Your task to perform on an android device: turn off translation in the chrome app Image 0: 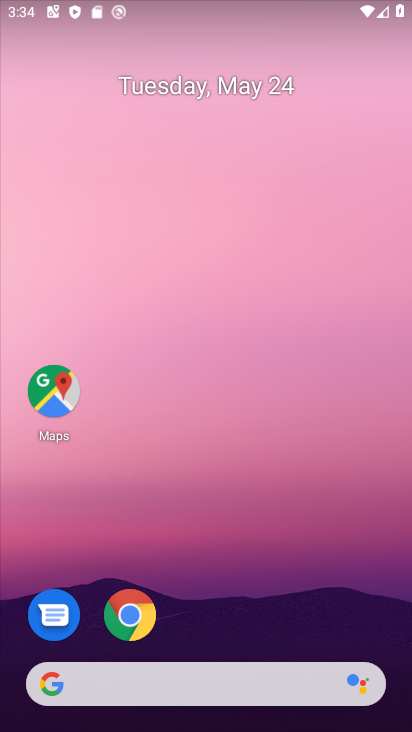
Step 0: click (119, 622)
Your task to perform on an android device: turn off translation in the chrome app Image 1: 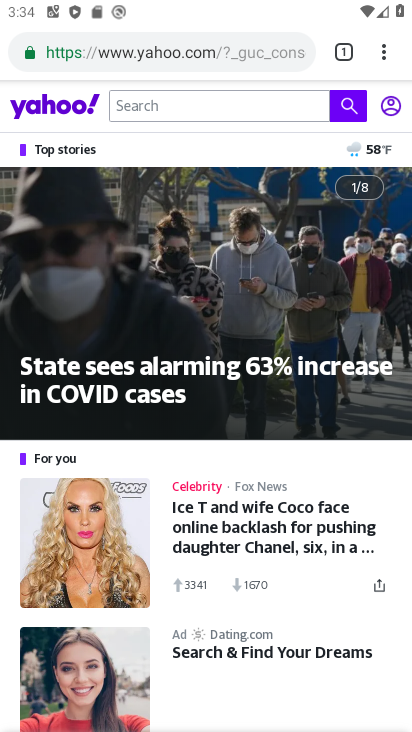
Step 1: click (383, 55)
Your task to perform on an android device: turn off translation in the chrome app Image 2: 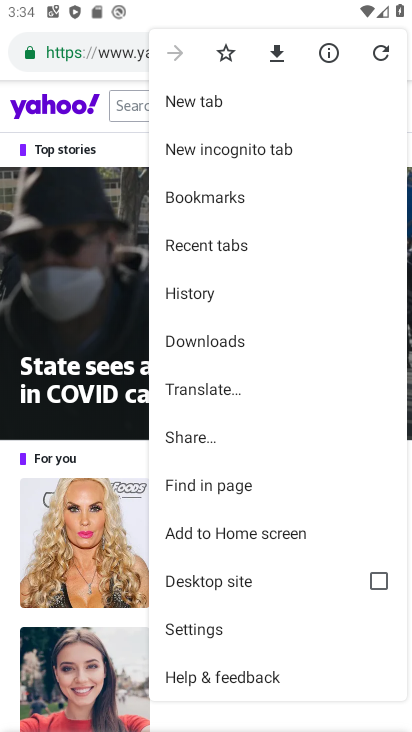
Step 2: click (201, 626)
Your task to perform on an android device: turn off translation in the chrome app Image 3: 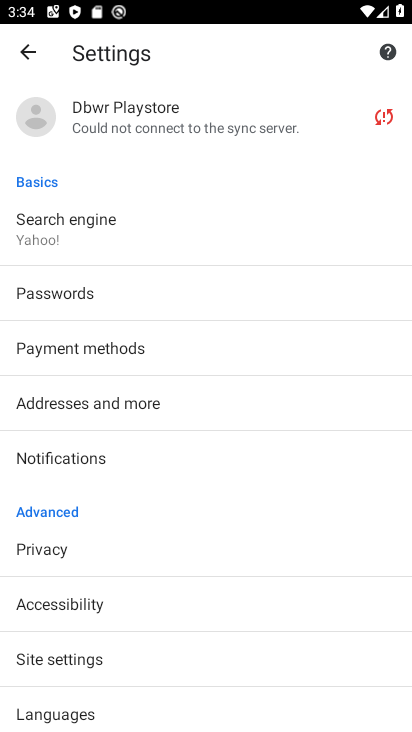
Step 3: click (59, 716)
Your task to perform on an android device: turn off translation in the chrome app Image 4: 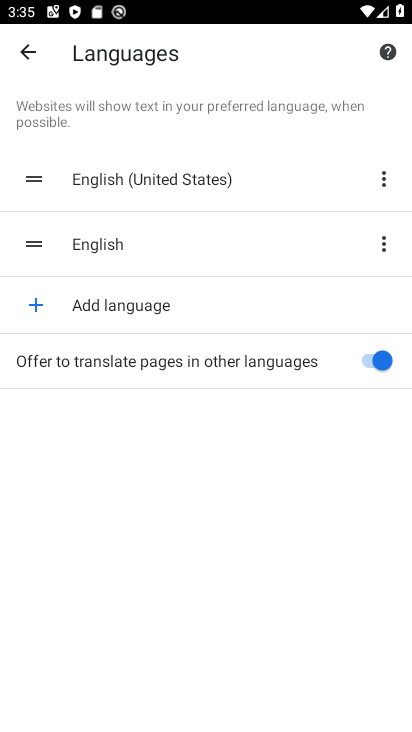
Step 4: click (368, 362)
Your task to perform on an android device: turn off translation in the chrome app Image 5: 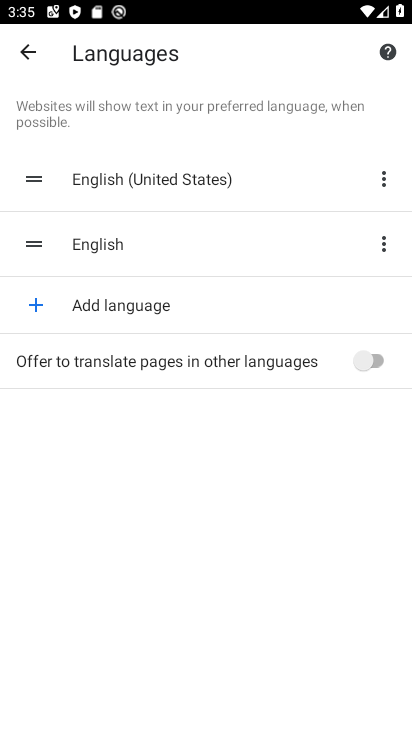
Step 5: task complete